Your task to perform on an android device: Go to calendar. Show me events next week Image 0: 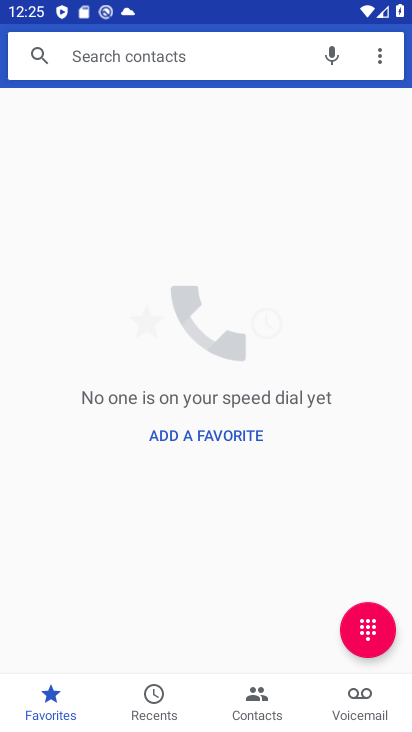
Step 0: press back button
Your task to perform on an android device: Go to calendar. Show me events next week Image 1: 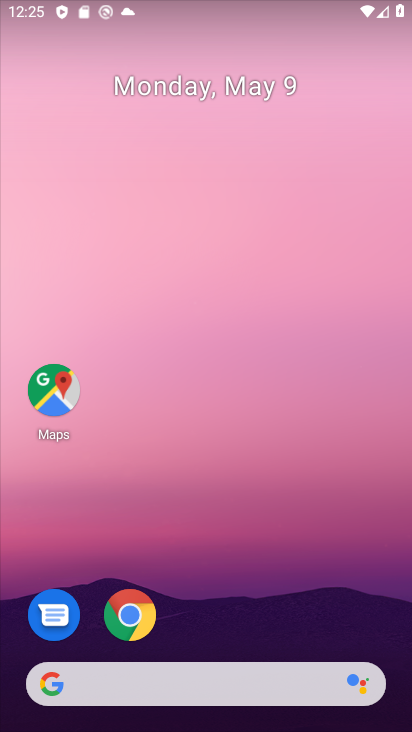
Step 1: drag from (238, 601) to (176, 88)
Your task to perform on an android device: Go to calendar. Show me events next week Image 2: 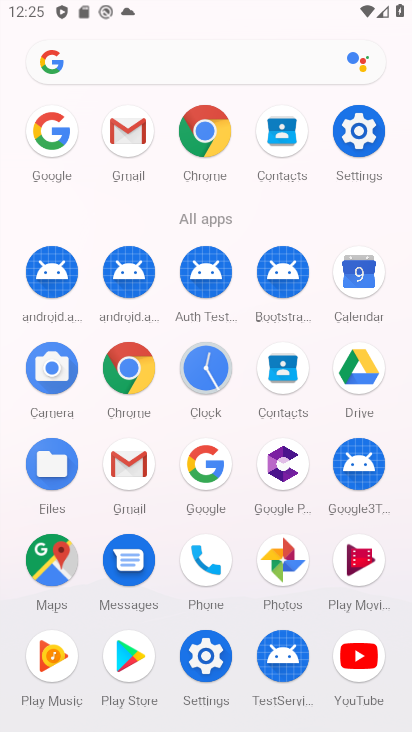
Step 2: click (361, 275)
Your task to perform on an android device: Go to calendar. Show me events next week Image 3: 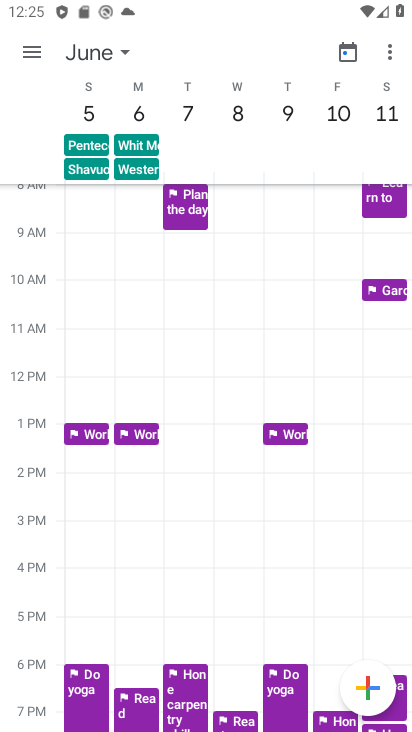
Step 3: click (353, 51)
Your task to perform on an android device: Go to calendar. Show me events next week Image 4: 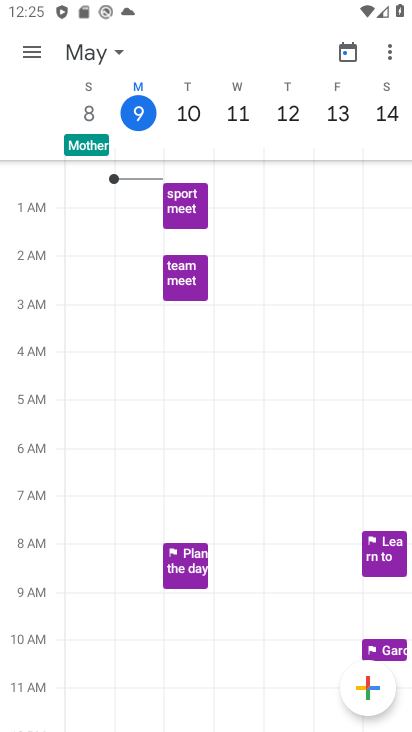
Step 4: click (119, 51)
Your task to perform on an android device: Go to calendar. Show me events next week Image 5: 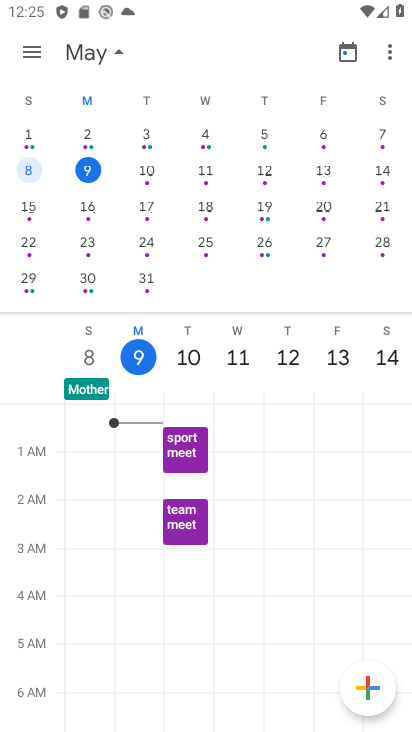
Step 5: click (89, 210)
Your task to perform on an android device: Go to calendar. Show me events next week Image 6: 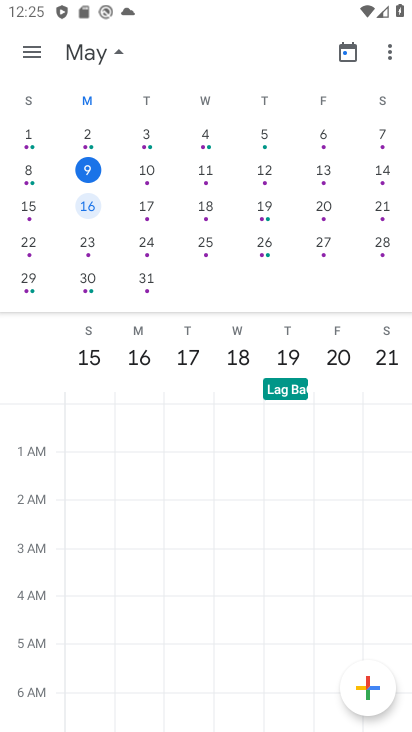
Step 6: click (23, 45)
Your task to perform on an android device: Go to calendar. Show me events next week Image 7: 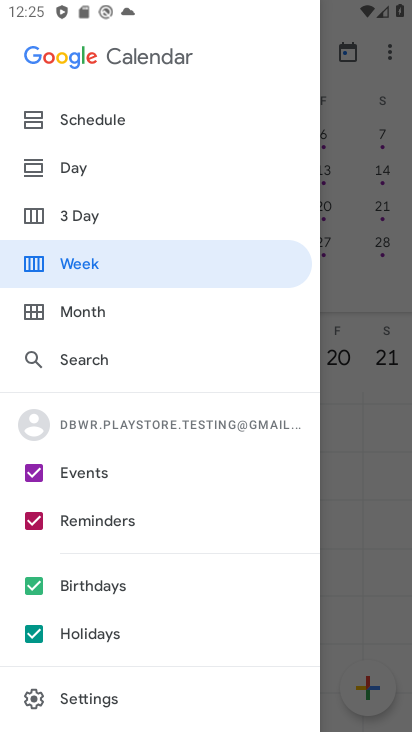
Step 7: click (85, 275)
Your task to perform on an android device: Go to calendar. Show me events next week Image 8: 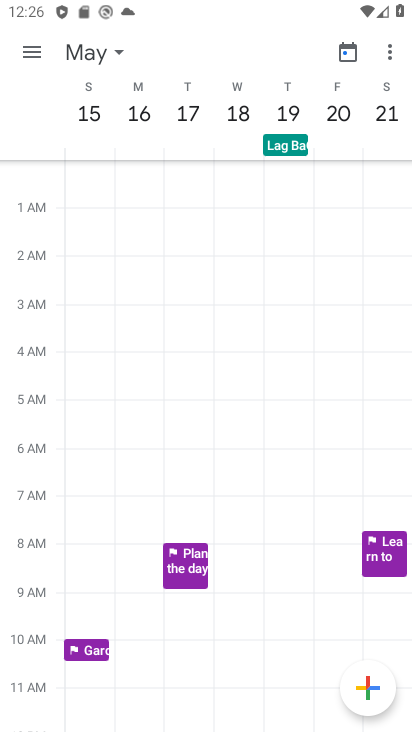
Step 8: task complete